Your task to perform on an android device: Open the contacts Image 0: 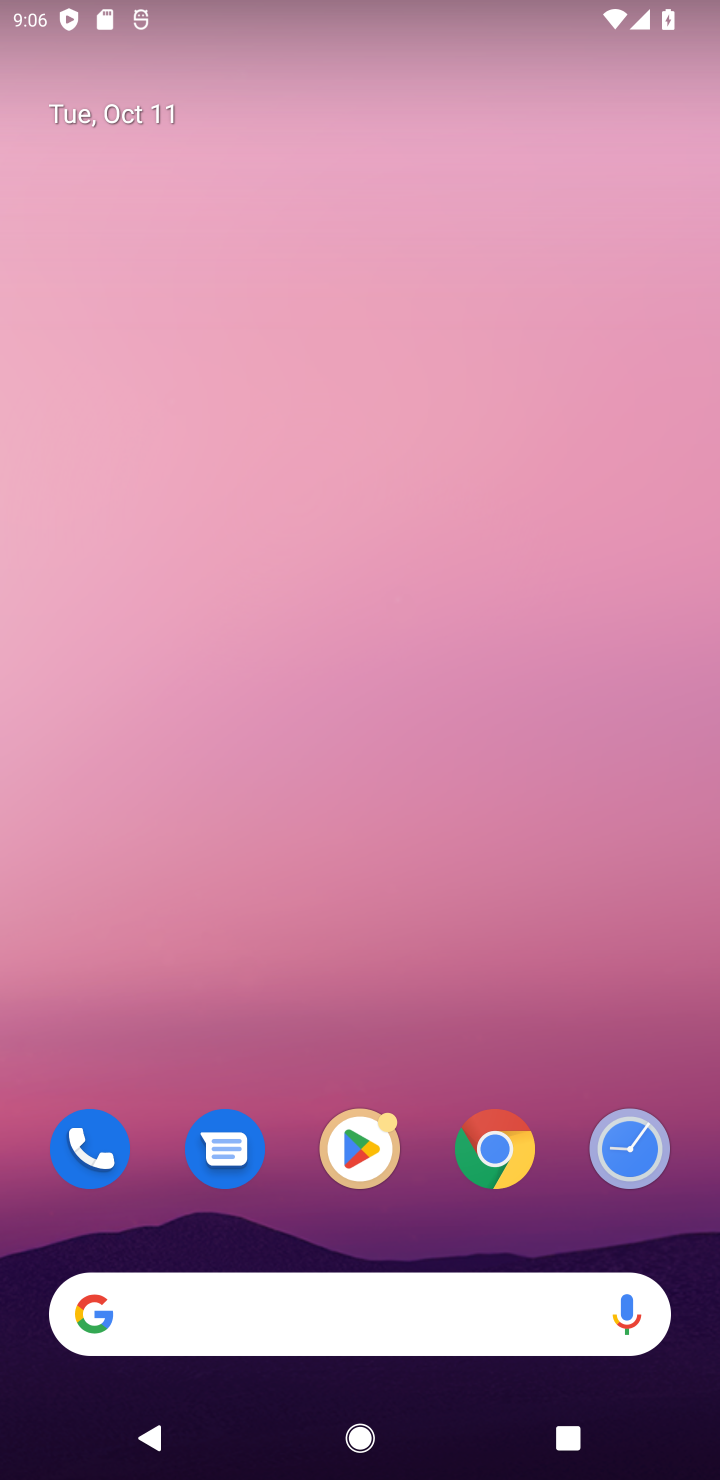
Step 0: drag from (324, 771) to (356, 123)
Your task to perform on an android device: Open the contacts Image 1: 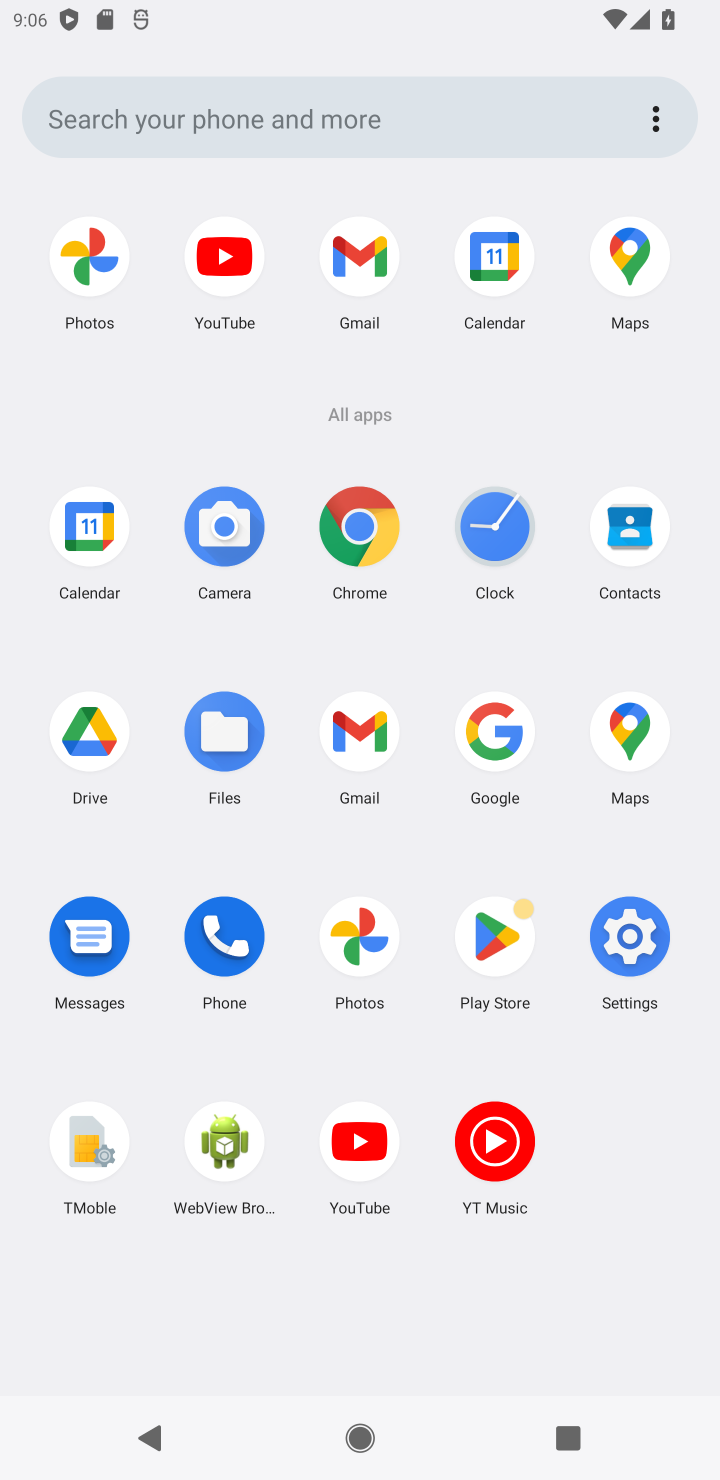
Step 1: click (257, 912)
Your task to perform on an android device: Open the contacts Image 2: 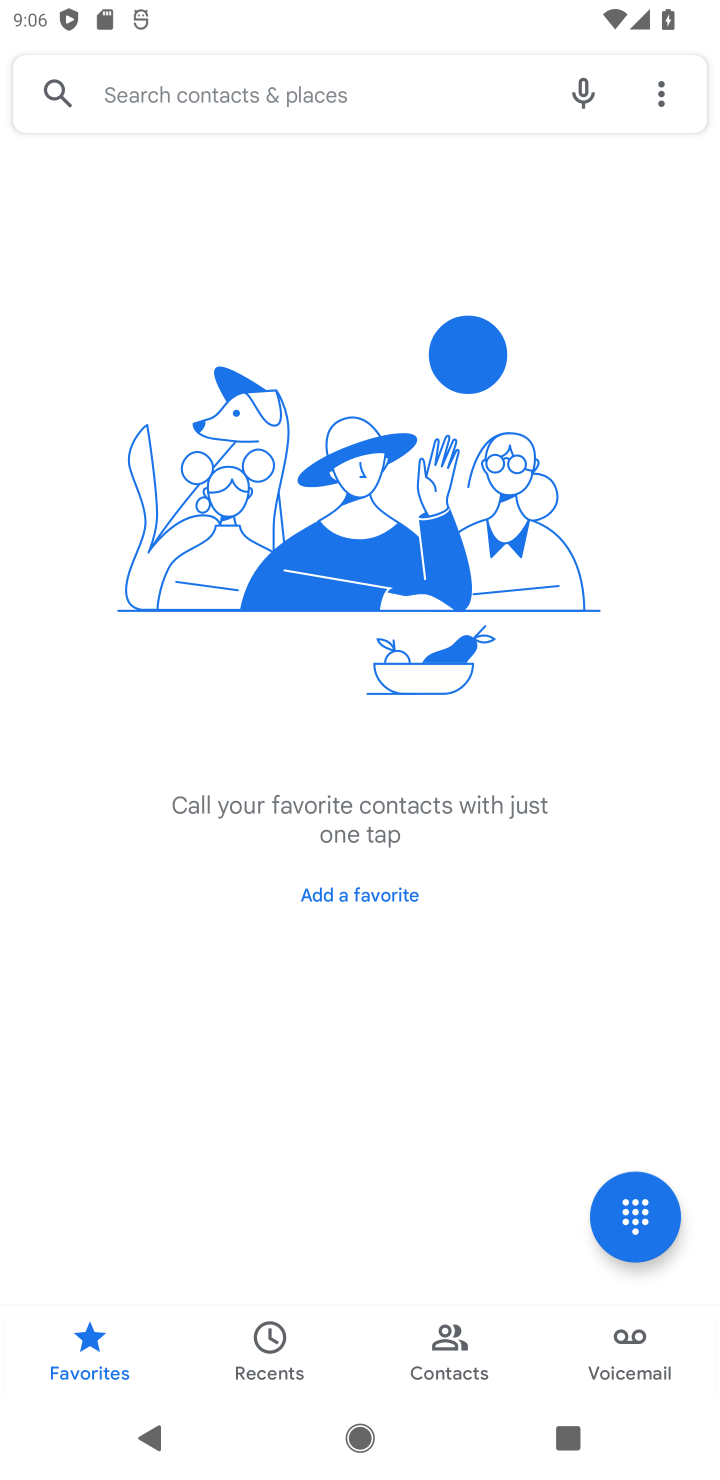
Step 2: click (461, 1362)
Your task to perform on an android device: Open the contacts Image 3: 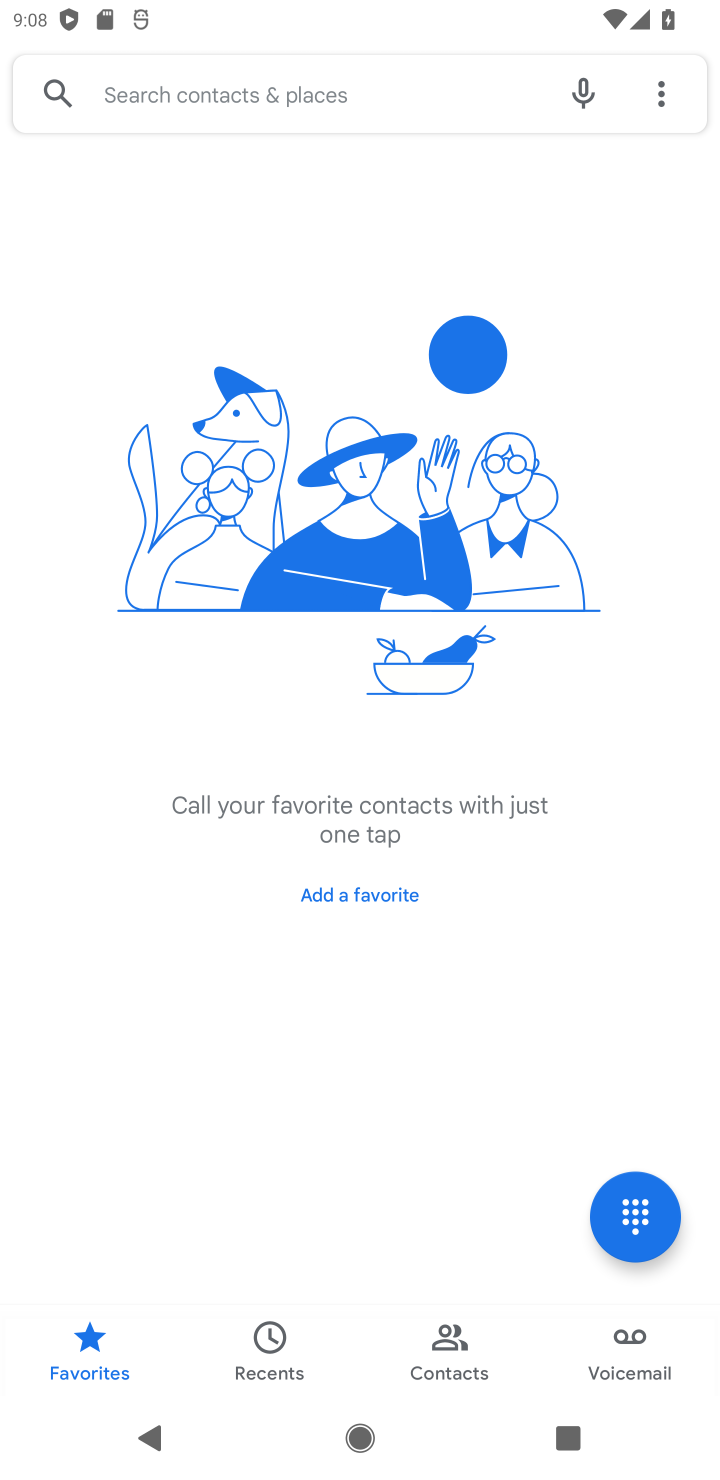
Step 3: click (442, 1377)
Your task to perform on an android device: Open the contacts Image 4: 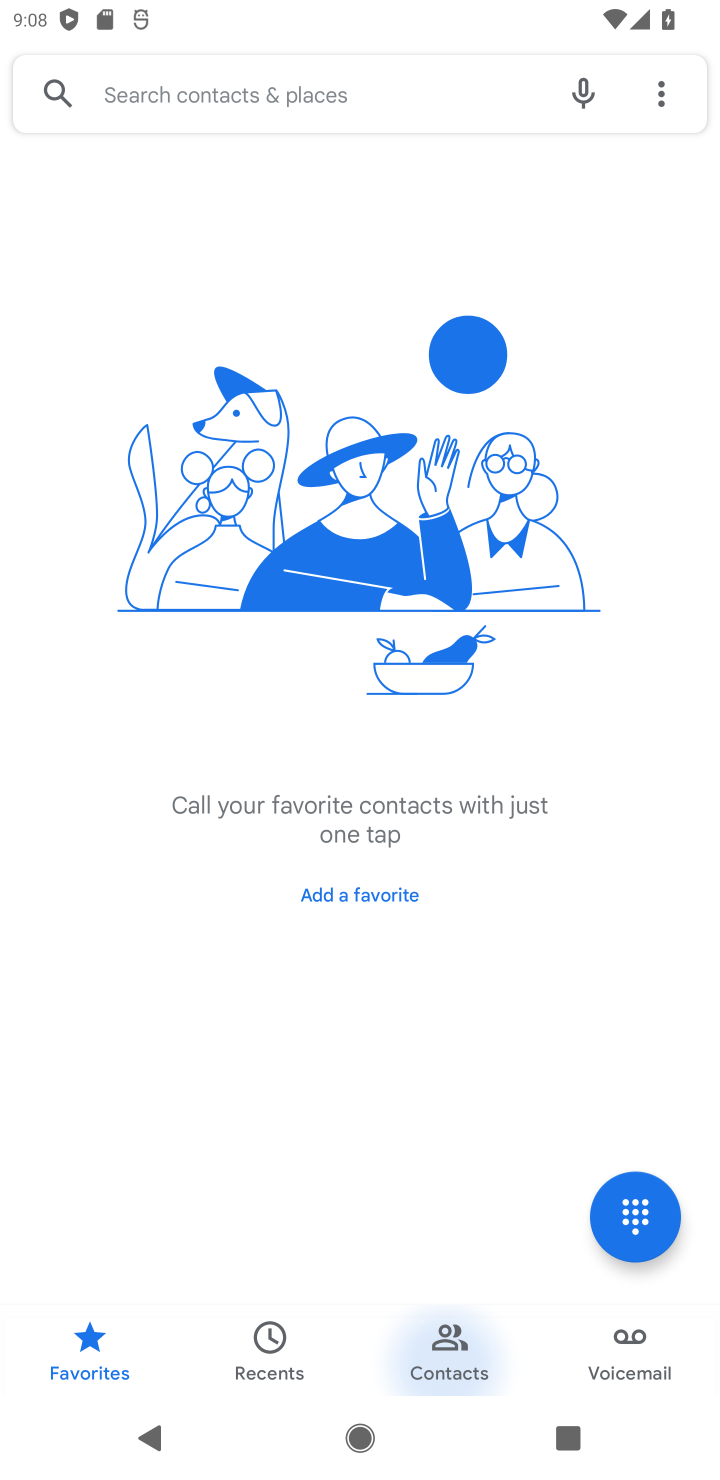
Step 4: click (439, 1353)
Your task to perform on an android device: Open the contacts Image 5: 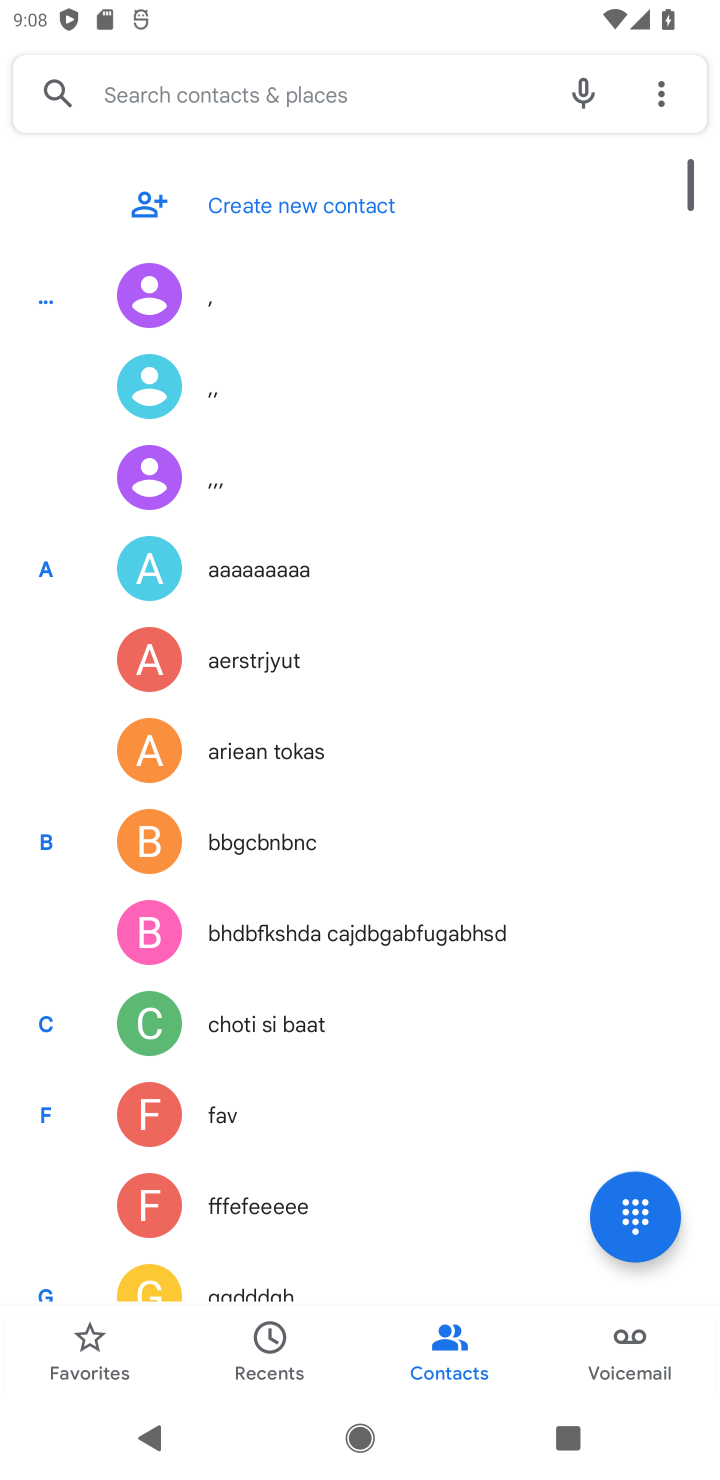
Step 5: task complete